Your task to perform on an android device: Open maps Image 0: 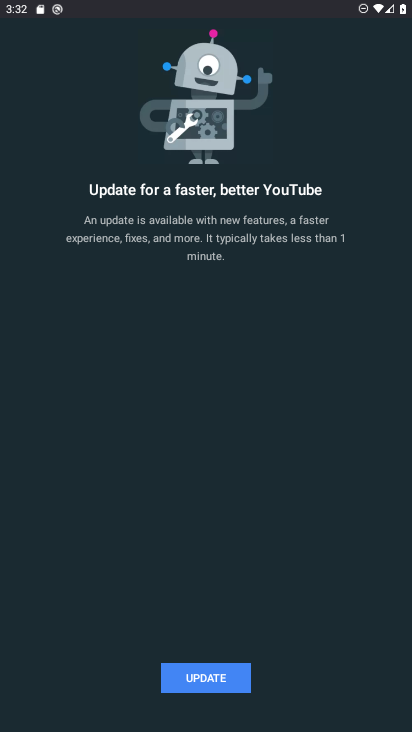
Step 0: press home button
Your task to perform on an android device: Open maps Image 1: 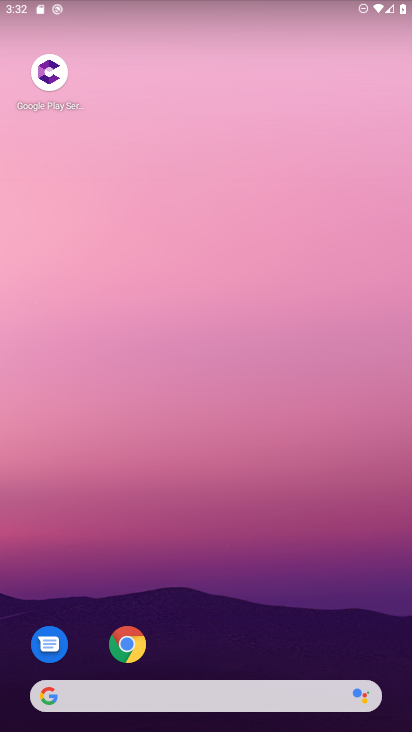
Step 1: drag from (210, 654) to (210, 234)
Your task to perform on an android device: Open maps Image 2: 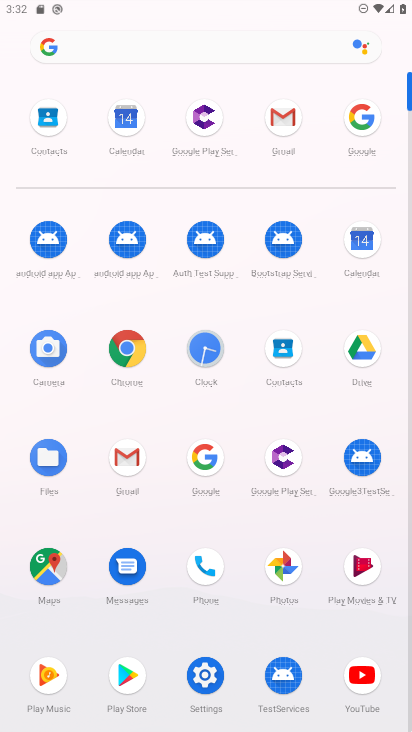
Step 2: click (57, 561)
Your task to perform on an android device: Open maps Image 3: 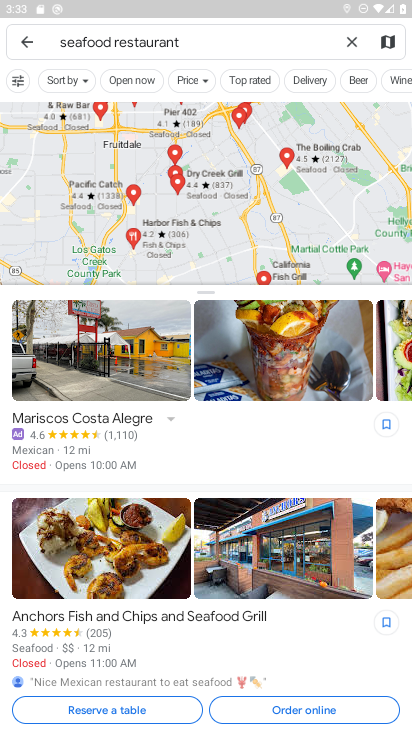
Step 3: task complete